Your task to perform on an android device: turn on sleep mode Image 0: 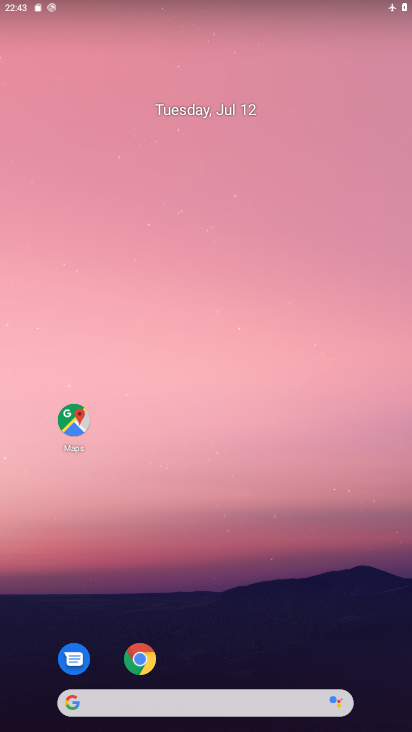
Step 0: drag from (207, 655) to (274, 270)
Your task to perform on an android device: turn on sleep mode Image 1: 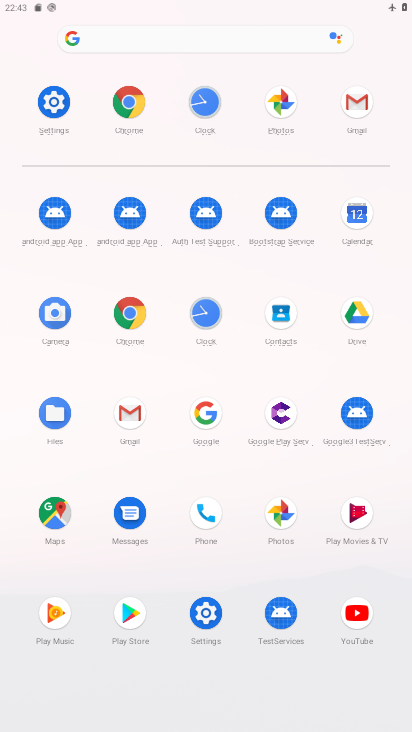
Step 1: click (37, 90)
Your task to perform on an android device: turn on sleep mode Image 2: 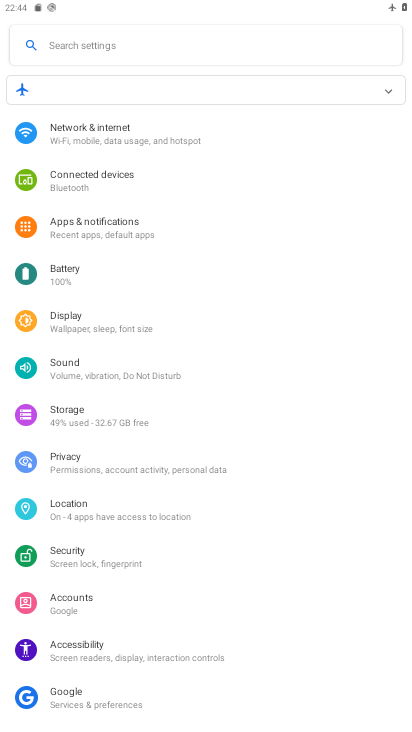
Step 2: task complete